Your task to perform on an android device: Go to privacy settings Image 0: 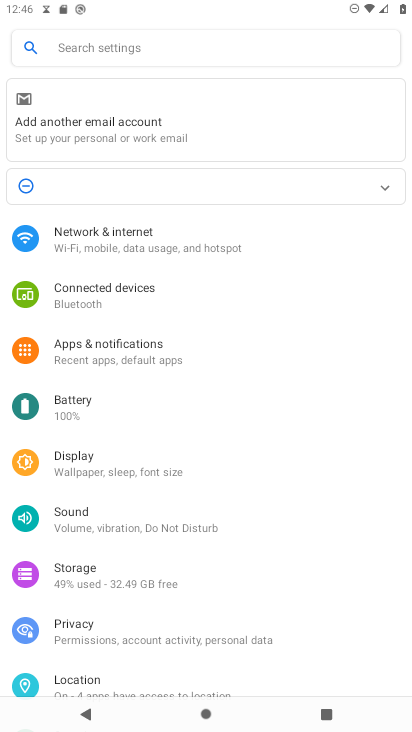
Step 0: press home button
Your task to perform on an android device: Go to privacy settings Image 1: 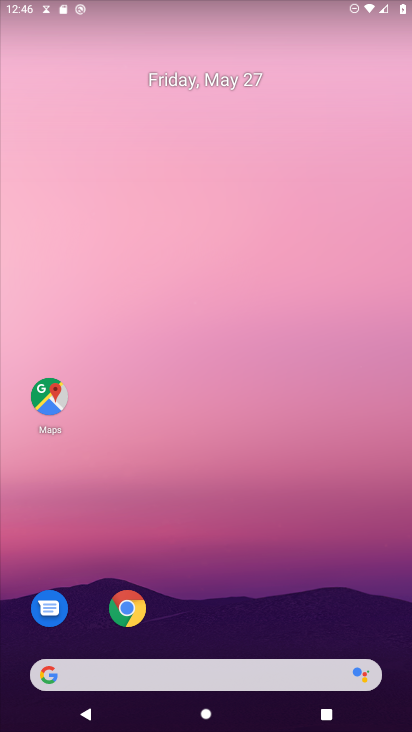
Step 1: drag from (224, 660) to (259, 152)
Your task to perform on an android device: Go to privacy settings Image 2: 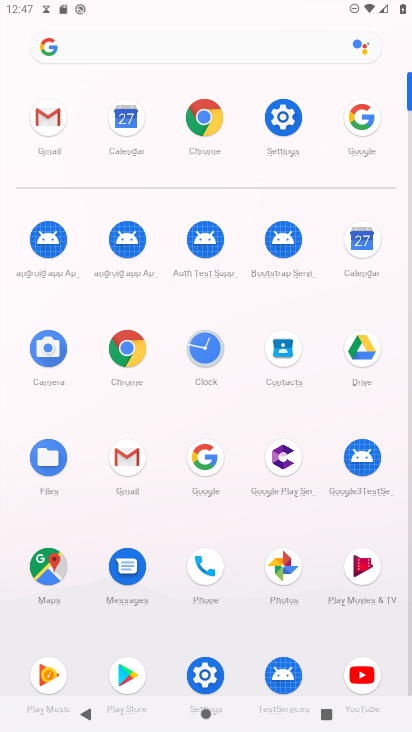
Step 2: click (285, 112)
Your task to perform on an android device: Go to privacy settings Image 3: 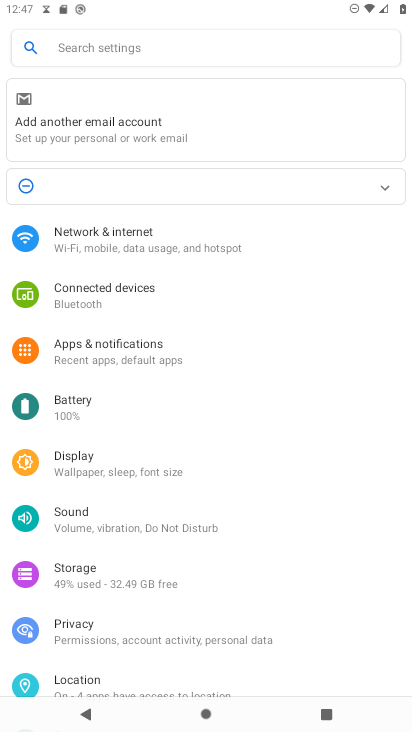
Step 3: click (133, 633)
Your task to perform on an android device: Go to privacy settings Image 4: 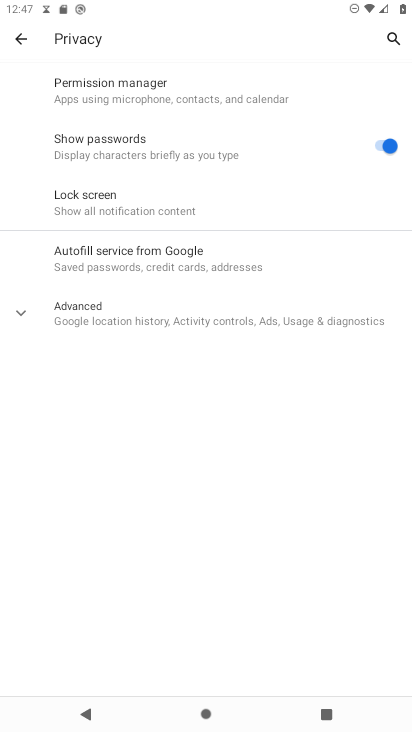
Step 4: task complete